Your task to perform on an android device: turn on improve location accuracy Image 0: 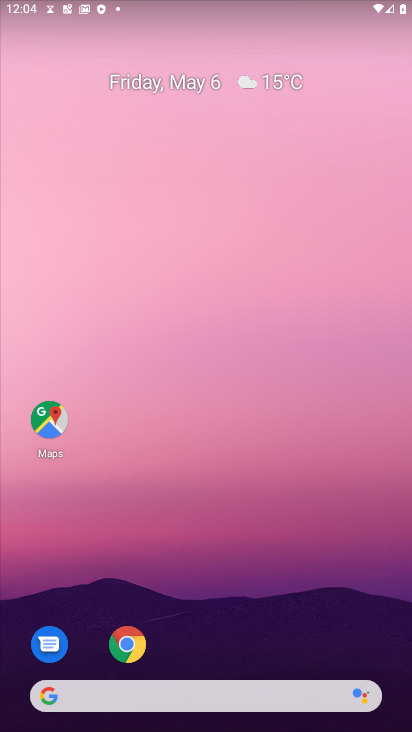
Step 0: drag from (244, 580) to (219, 36)
Your task to perform on an android device: turn on improve location accuracy Image 1: 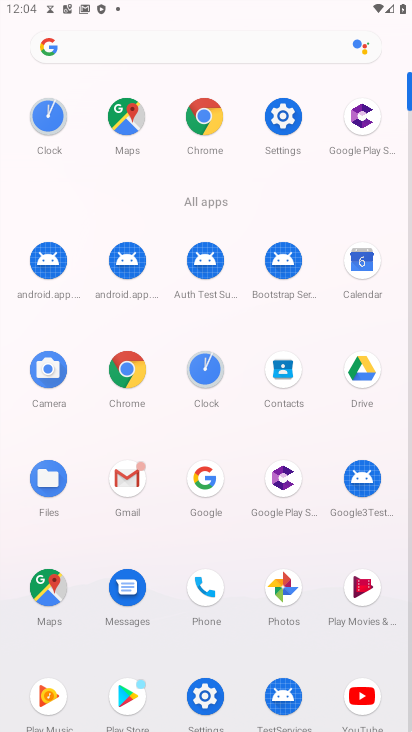
Step 1: drag from (8, 619) to (21, 258)
Your task to perform on an android device: turn on improve location accuracy Image 2: 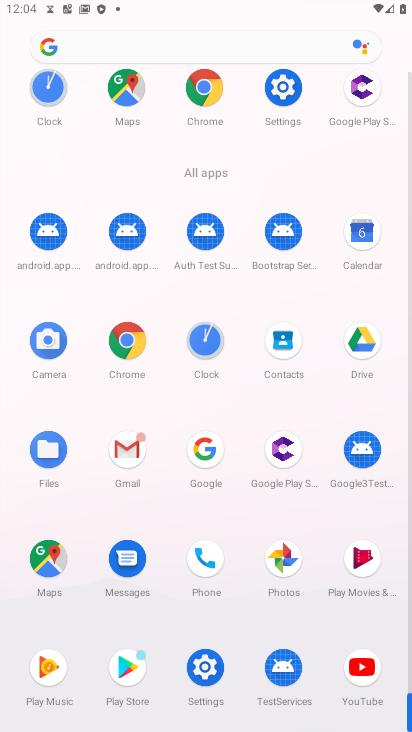
Step 2: drag from (10, 629) to (22, 395)
Your task to perform on an android device: turn on improve location accuracy Image 3: 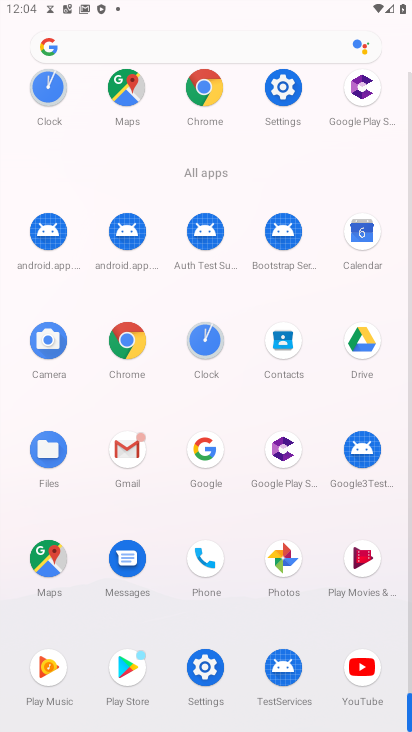
Step 3: drag from (10, 647) to (10, 351)
Your task to perform on an android device: turn on improve location accuracy Image 4: 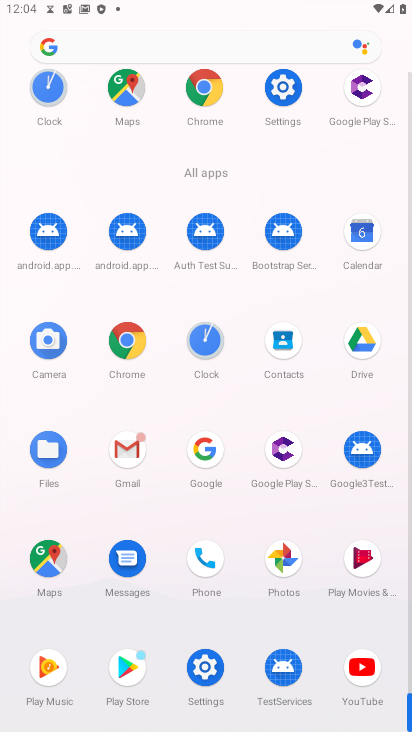
Step 4: click (203, 664)
Your task to perform on an android device: turn on improve location accuracy Image 5: 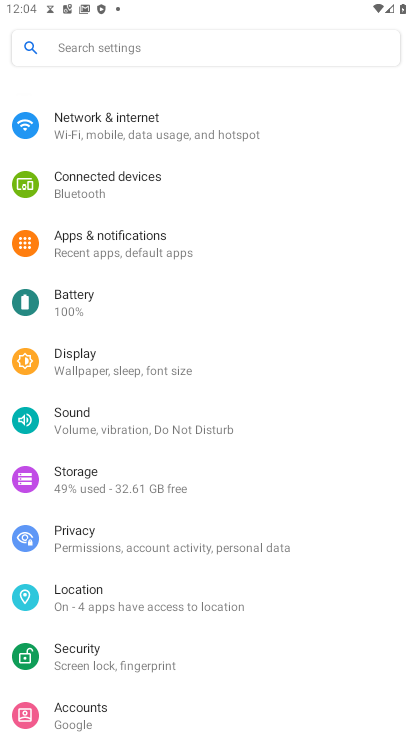
Step 5: drag from (265, 640) to (279, 157)
Your task to perform on an android device: turn on improve location accuracy Image 6: 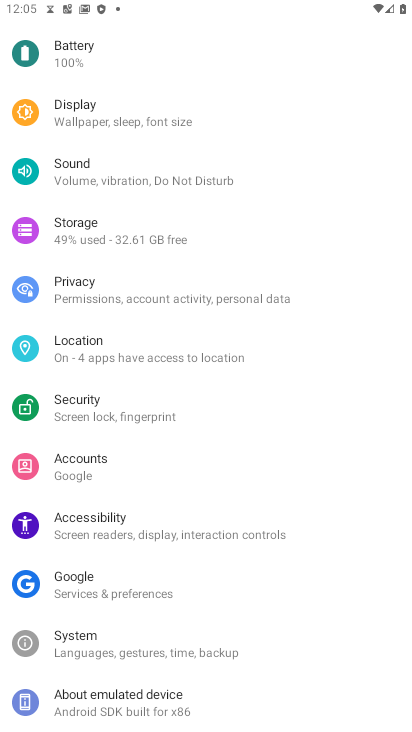
Step 6: drag from (222, 586) to (256, 158)
Your task to perform on an android device: turn on improve location accuracy Image 7: 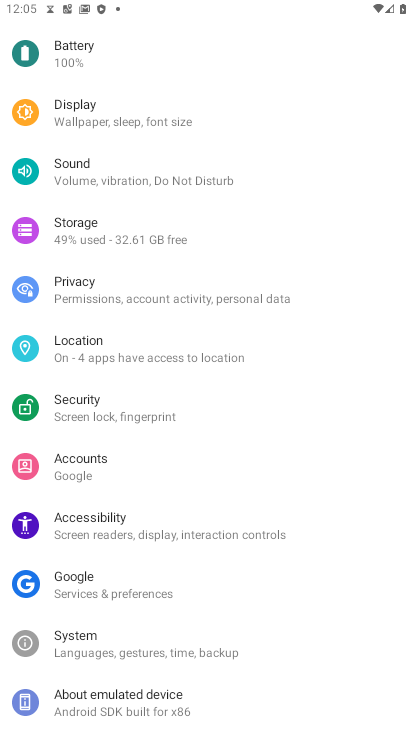
Step 7: drag from (208, 283) to (198, 641)
Your task to perform on an android device: turn on improve location accuracy Image 8: 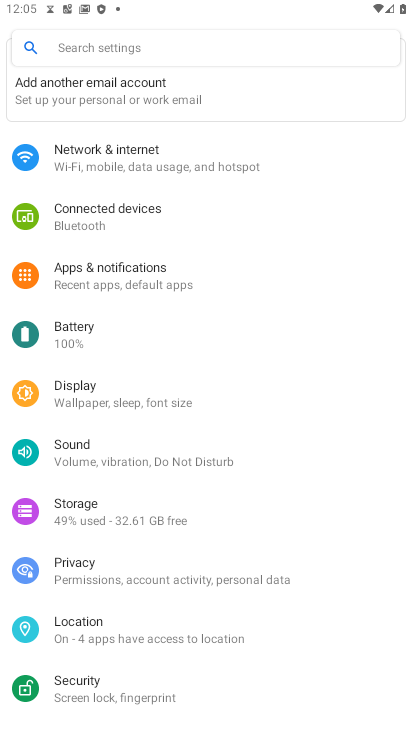
Step 8: drag from (189, 526) to (250, 106)
Your task to perform on an android device: turn on improve location accuracy Image 9: 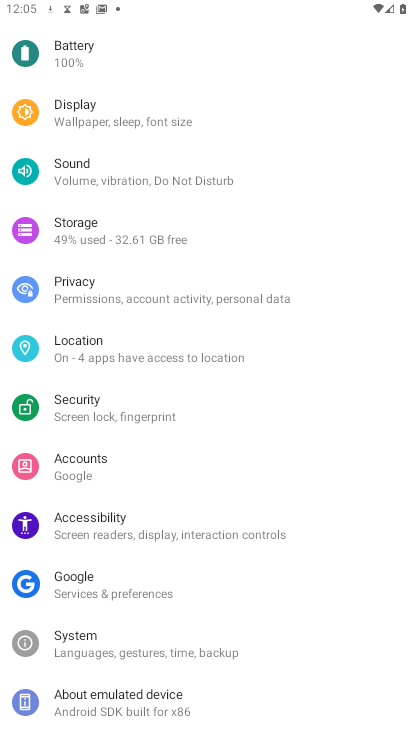
Step 9: click (125, 338)
Your task to perform on an android device: turn on improve location accuracy Image 10: 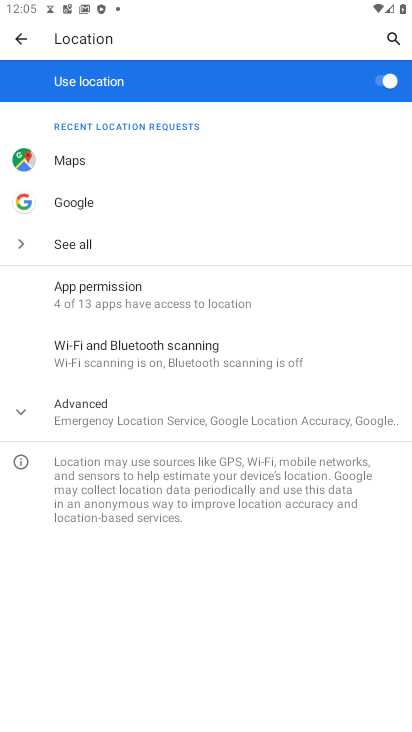
Step 10: click (28, 405)
Your task to perform on an android device: turn on improve location accuracy Image 11: 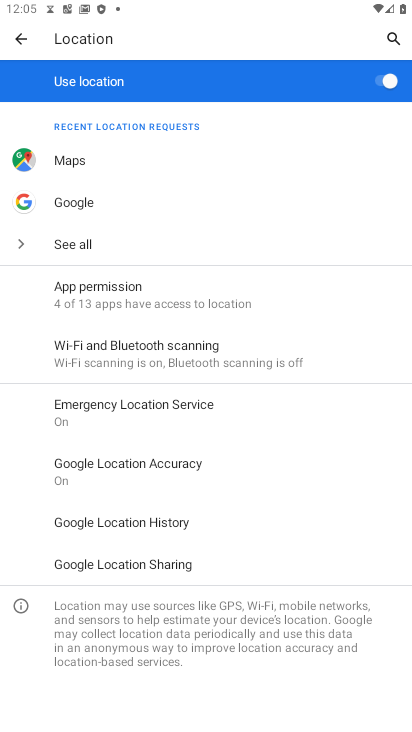
Step 11: click (158, 468)
Your task to perform on an android device: turn on improve location accuracy Image 12: 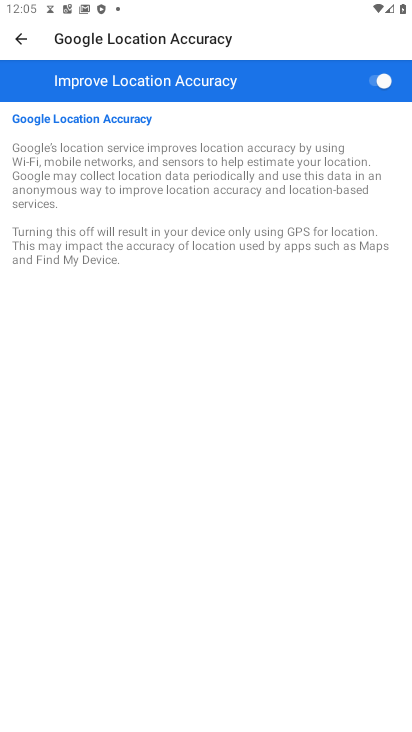
Step 12: task complete